Your task to perform on an android device: Open Yahoo.com Image 0: 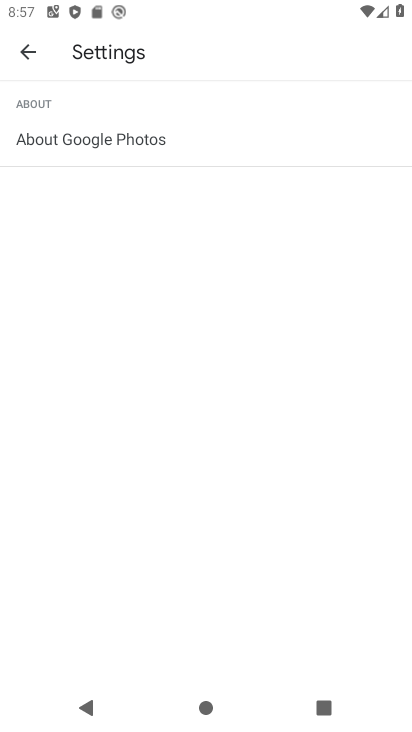
Step 0: press home button
Your task to perform on an android device: Open Yahoo.com Image 1: 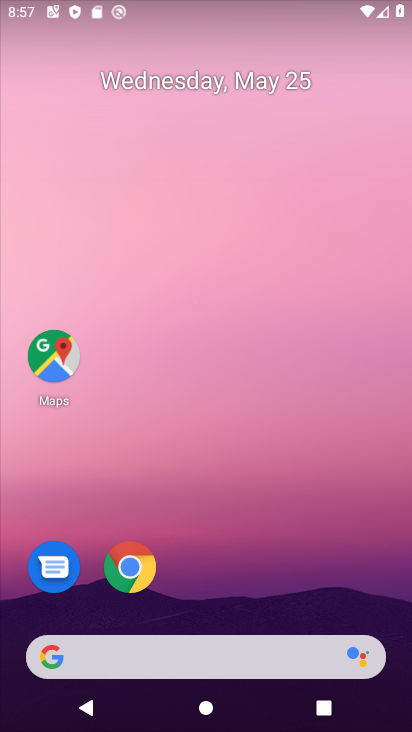
Step 1: click (246, 659)
Your task to perform on an android device: Open Yahoo.com Image 2: 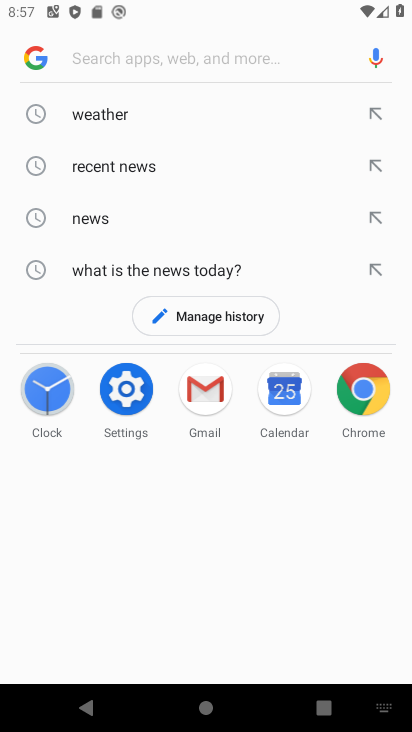
Step 2: type "yahoo.com"
Your task to perform on an android device: Open Yahoo.com Image 3: 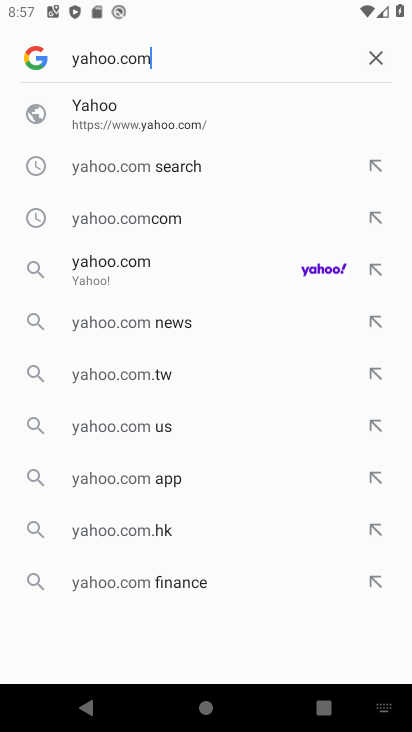
Step 3: click (152, 260)
Your task to perform on an android device: Open Yahoo.com Image 4: 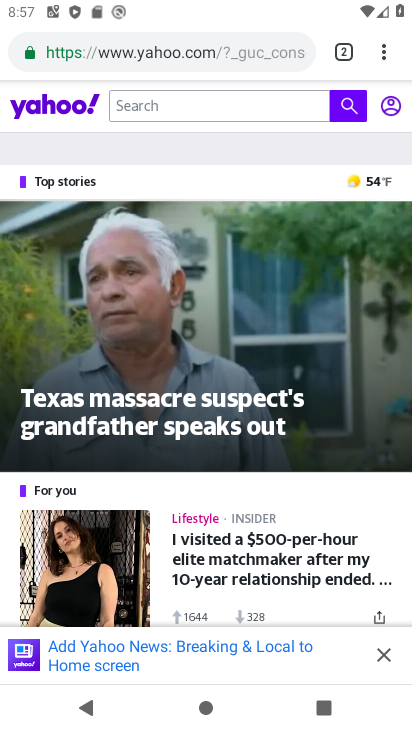
Step 4: task complete